Your task to perform on an android device: Open Wikipedia Image 0: 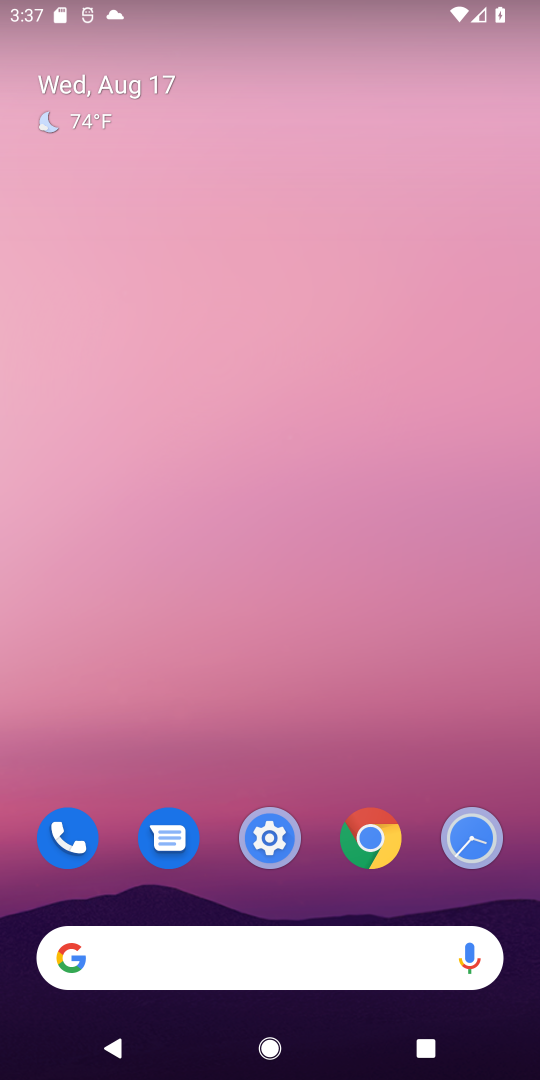
Step 0: click (381, 835)
Your task to perform on an android device: Open Wikipedia Image 1: 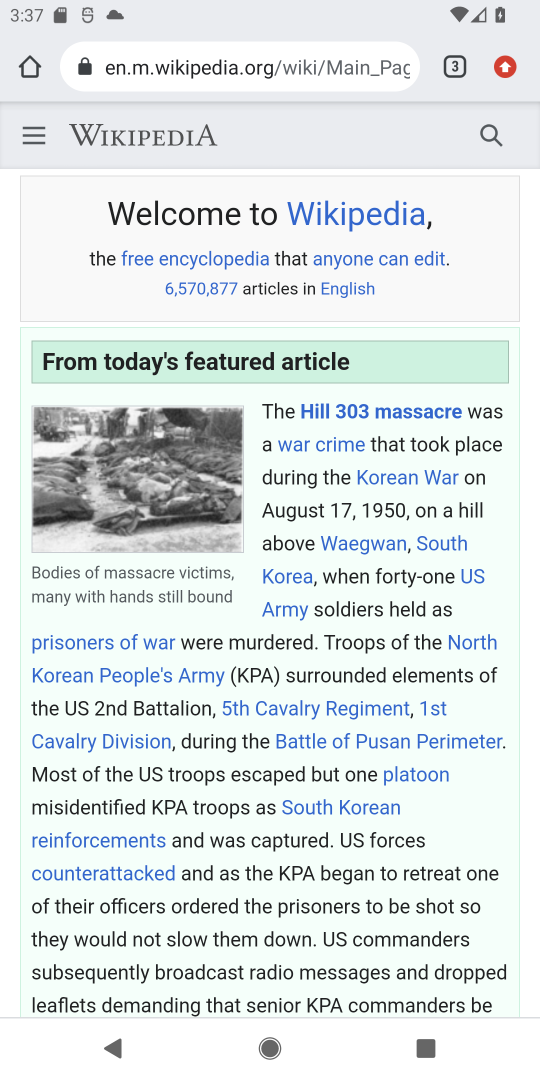
Step 1: task complete